Your task to perform on an android device: Open Google Chrome and open the bookmarks view Image 0: 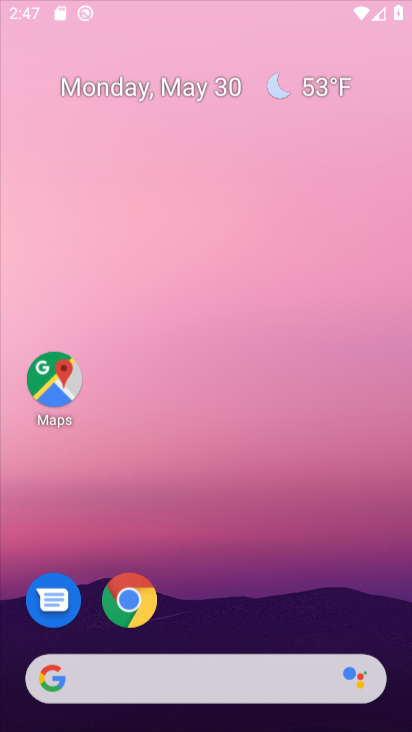
Step 0: click (395, 48)
Your task to perform on an android device: Open Google Chrome and open the bookmarks view Image 1: 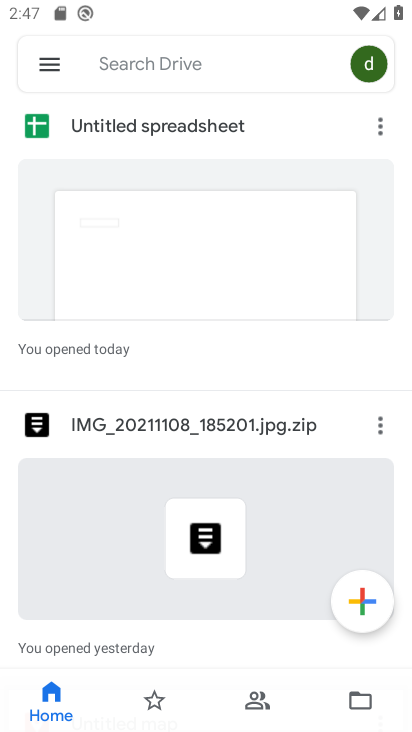
Step 1: press home button
Your task to perform on an android device: Open Google Chrome and open the bookmarks view Image 2: 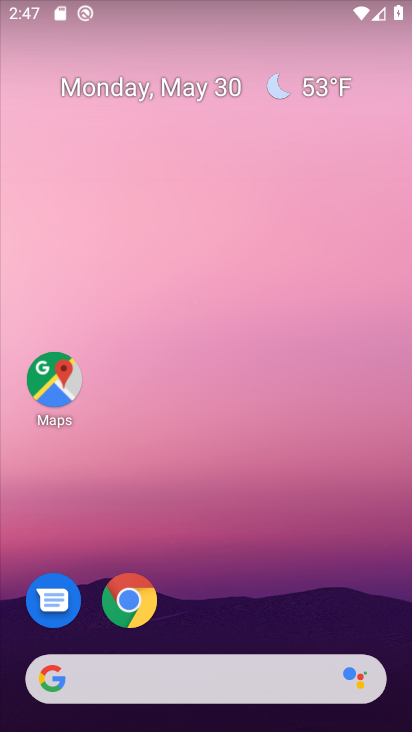
Step 2: drag from (321, 565) to (328, 39)
Your task to perform on an android device: Open Google Chrome and open the bookmarks view Image 3: 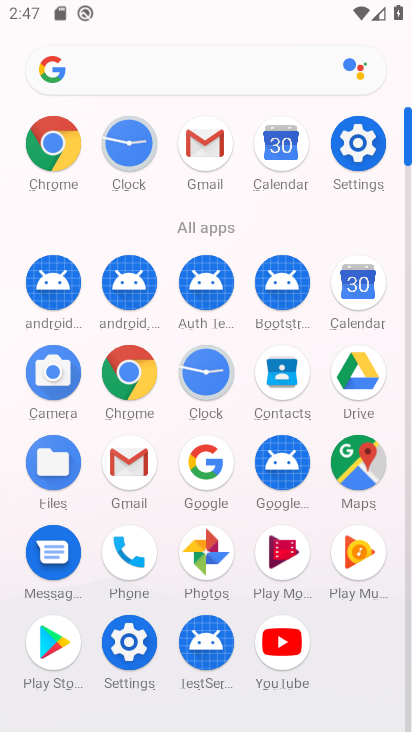
Step 3: click (60, 149)
Your task to perform on an android device: Open Google Chrome and open the bookmarks view Image 4: 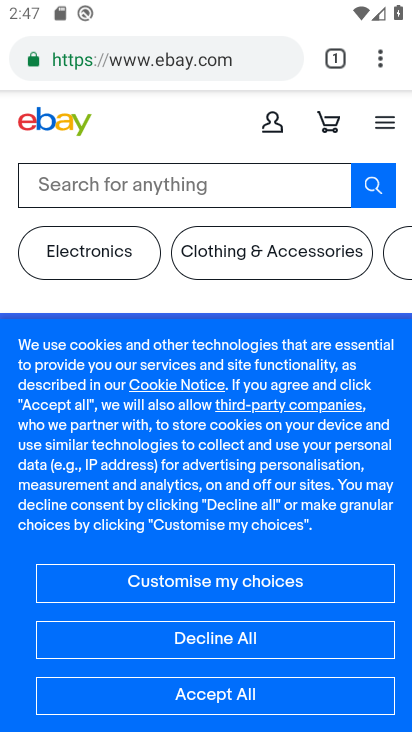
Step 4: drag from (386, 60) to (216, 225)
Your task to perform on an android device: Open Google Chrome and open the bookmarks view Image 5: 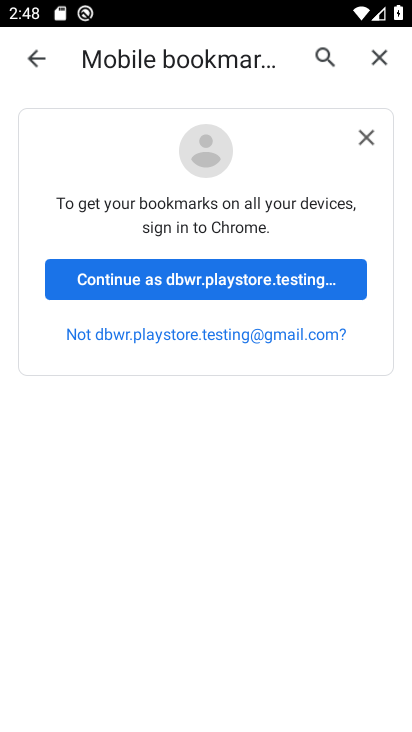
Step 5: click (225, 280)
Your task to perform on an android device: Open Google Chrome and open the bookmarks view Image 6: 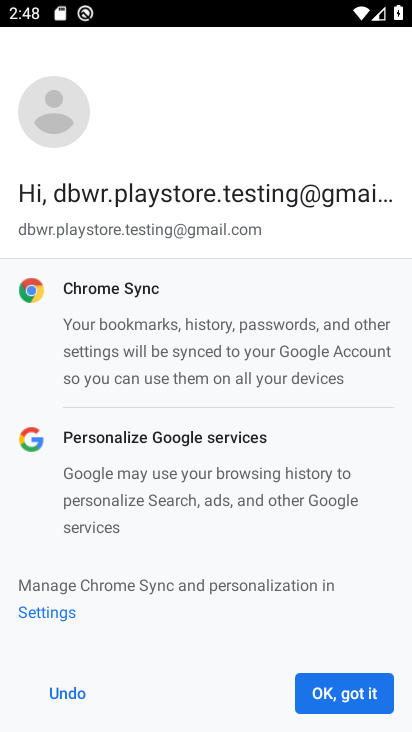
Step 6: click (382, 707)
Your task to perform on an android device: Open Google Chrome and open the bookmarks view Image 7: 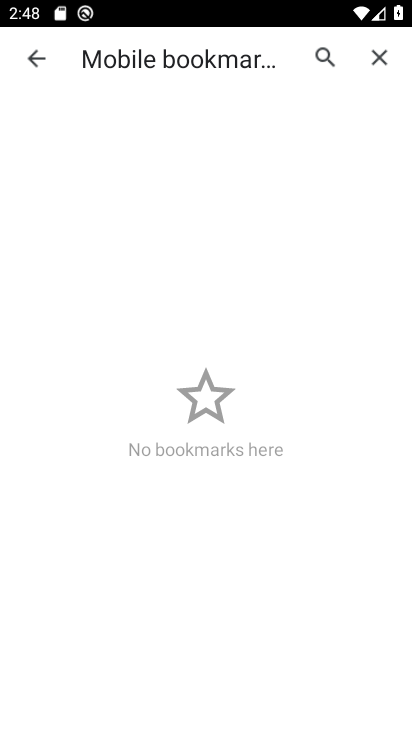
Step 7: task complete